Your task to perform on an android device: set default search engine in the chrome app Image 0: 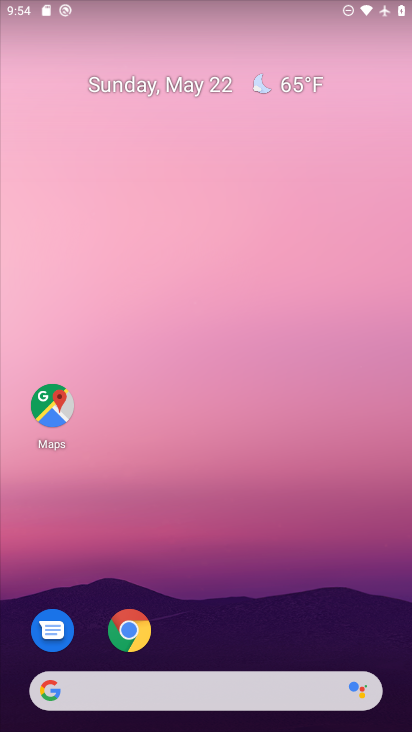
Step 0: press home button
Your task to perform on an android device: set default search engine in the chrome app Image 1: 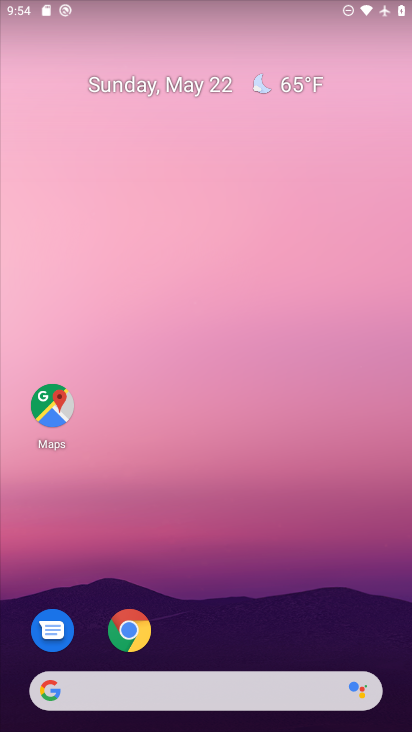
Step 1: click (124, 630)
Your task to perform on an android device: set default search engine in the chrome app Image 2: 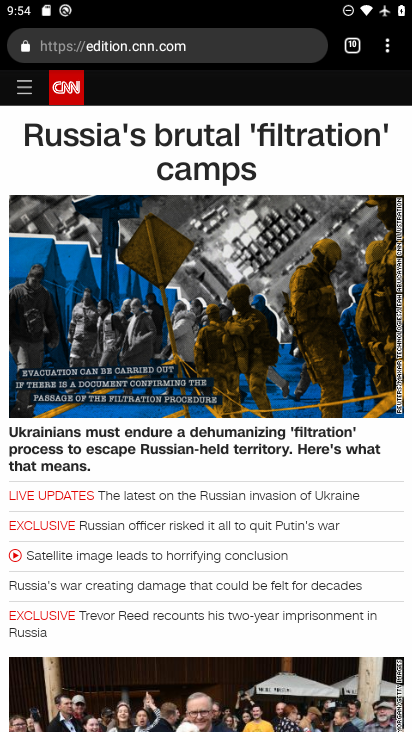
Step 2: drag from (386, 46) to (248, 500)
Your task to perform on an android device: set default search engine in the chrome app Image 3: 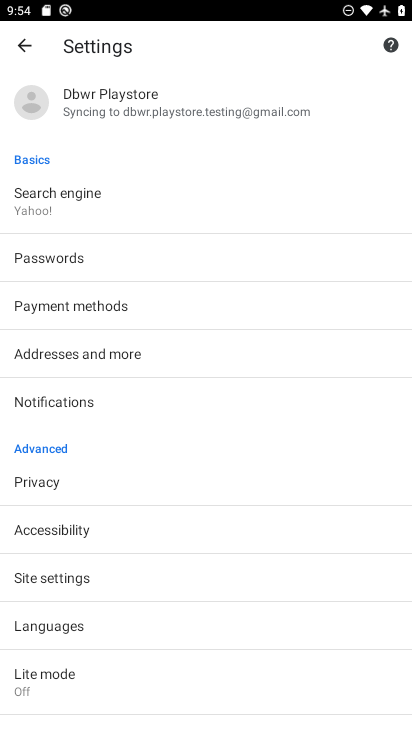
Step 3: click (74, 199)
Your task to perform on an android device: set default search engine in the chrome app Image 4: 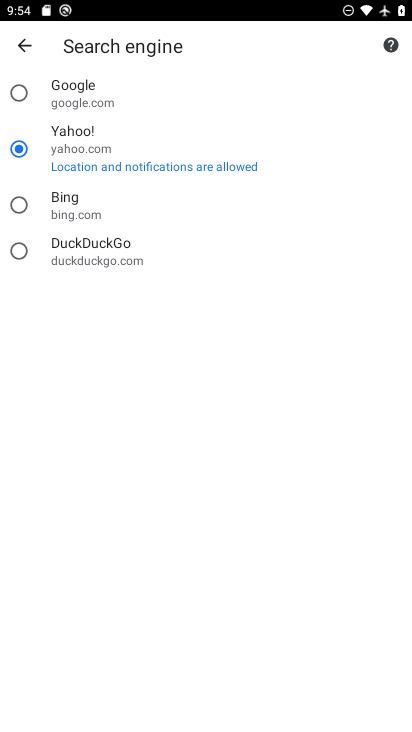
Step 4: click (24, 94)
Your task to perform on an android device: set default search engine in the chrome app Image 5: 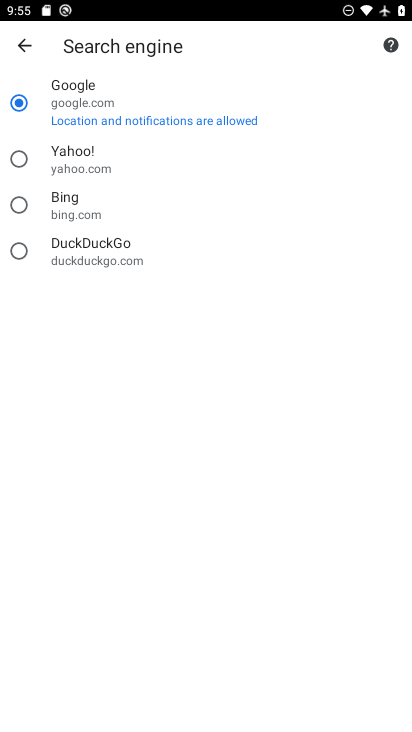
Step 5: task complete